Your task to perform on an android device: turn on data saver in the chrome app Image 0: 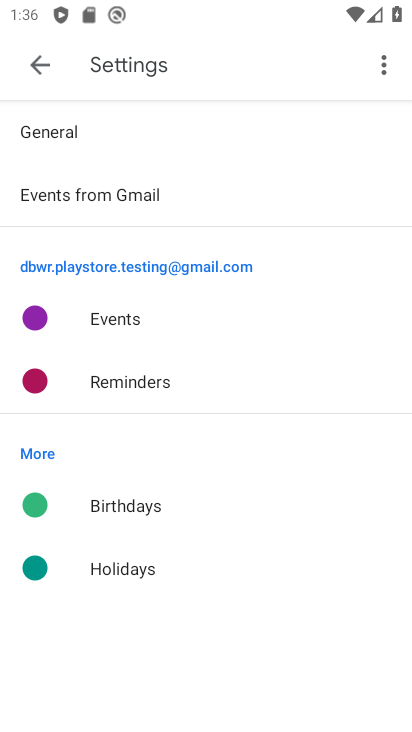
Step 0: press home button
Your task to perform on an android device: turn on data saver in the chrome app Image 1: 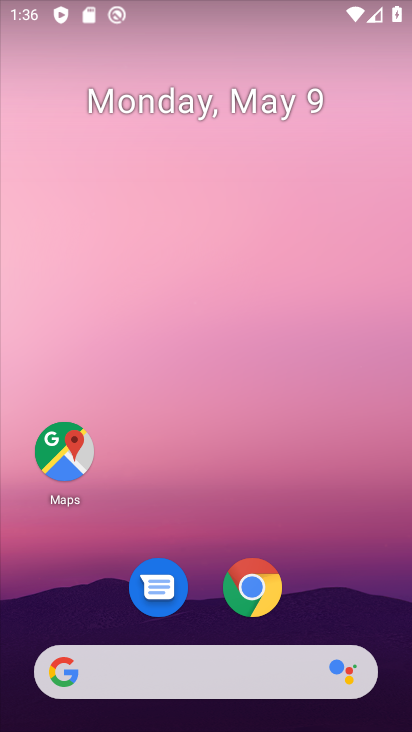
Step 1: click (239, 596)
Your task to perform on an android device: turn on data saver in the chrome app Image 2: 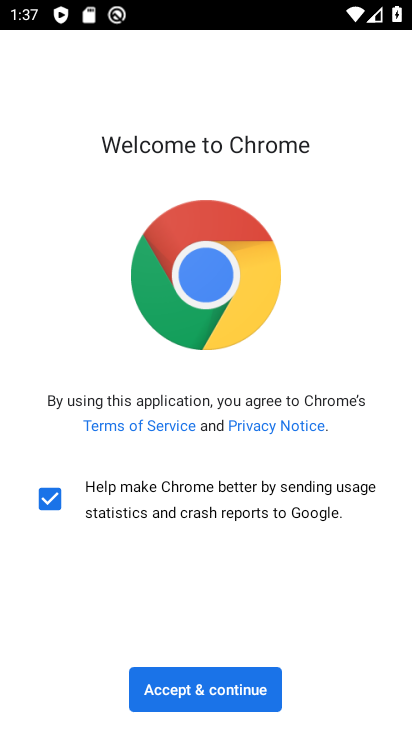
Step 2: click (222, 688)
Your task to perform on an android device: turn on data saver in the chrome app Image 3: 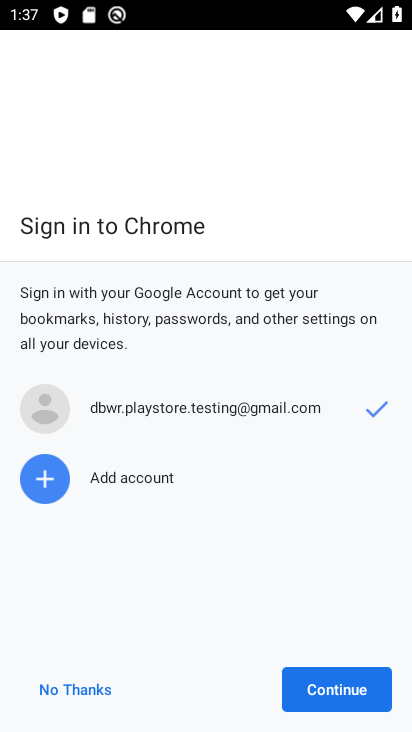
Step 3: click (315, 677)
Your task to perform on an android device: turn on data saver in the chrome app Image 4: 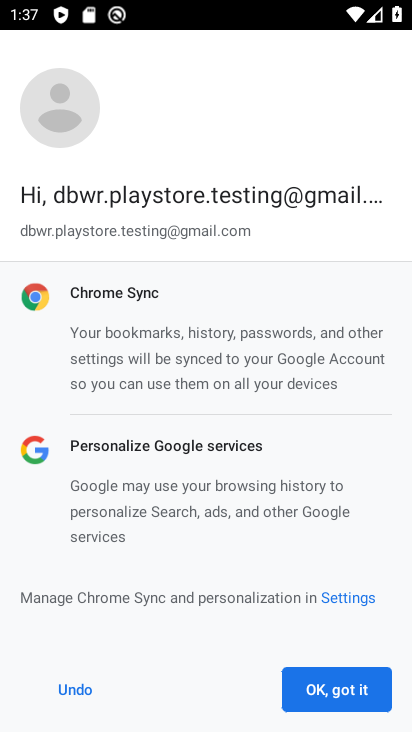
Step 4: click (315, 677)
Your task to perform on an android device: turn on data saver in the chrome app Image 5: 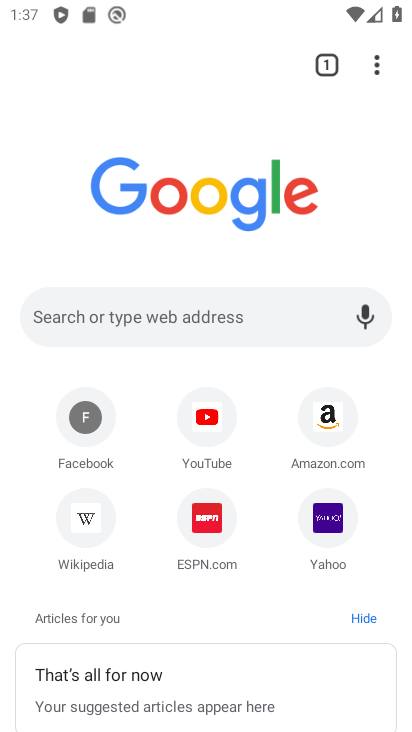
Step 5: click (380, 65)
Your task to perform on an android device: turn on data saver in the chrome app Image 6: 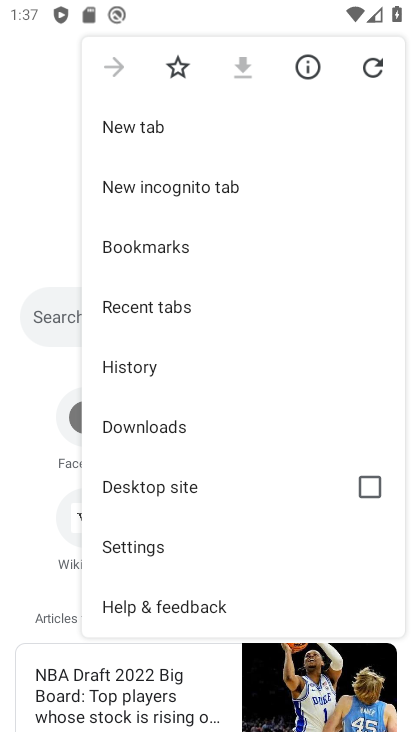
Step 6: click (149, 548)
Your task to perform on an android device: turn on data saver in the chrome app Image 7: 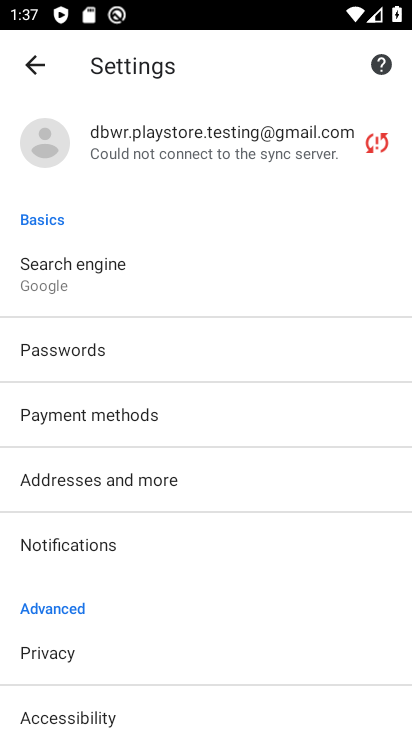
Step 7: drag from (151, 608) to (188, 171)
Your task to perform on an android device: turn on data saver in the chrome app Image 8: 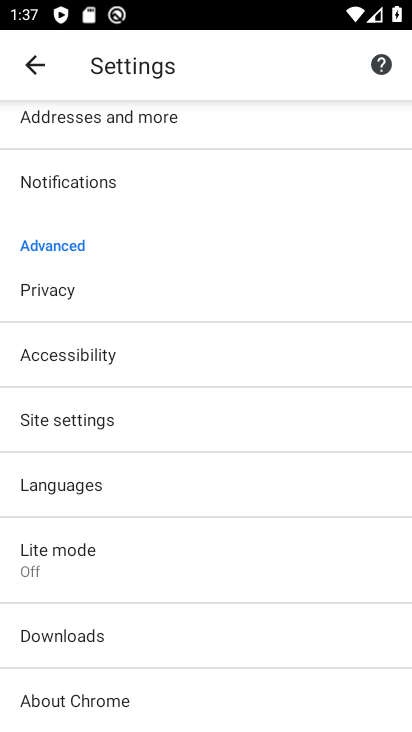
Step 8: click (88, 566)
Your task to perform on an android device: turn on data saver in the chrome app Image 9: 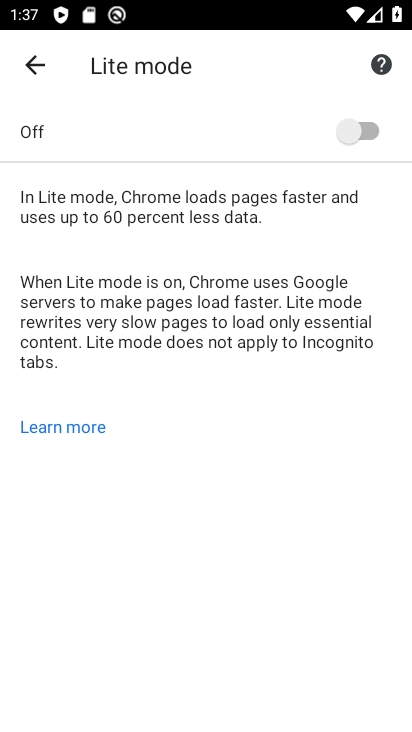
Step 9: click (356, 139)
Your task to perform on an android device: turn on data saver in the chrome app Image 10: 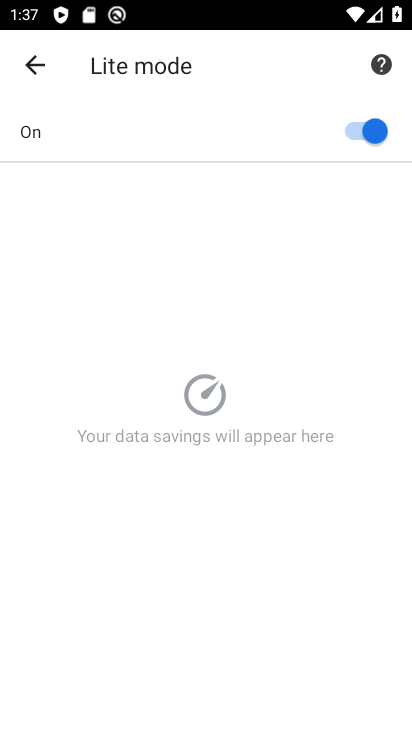
Step 10: task complete